Your task to perform on an android device: check google app version Image 0: 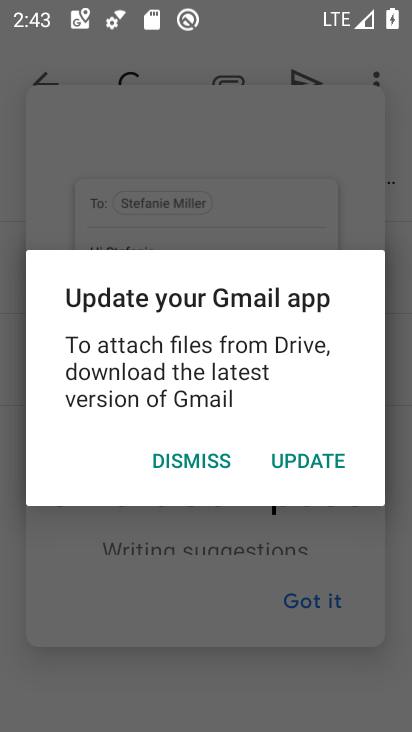
Step 0: press home button
Your task to perform on an android device: check google app version Image 1: 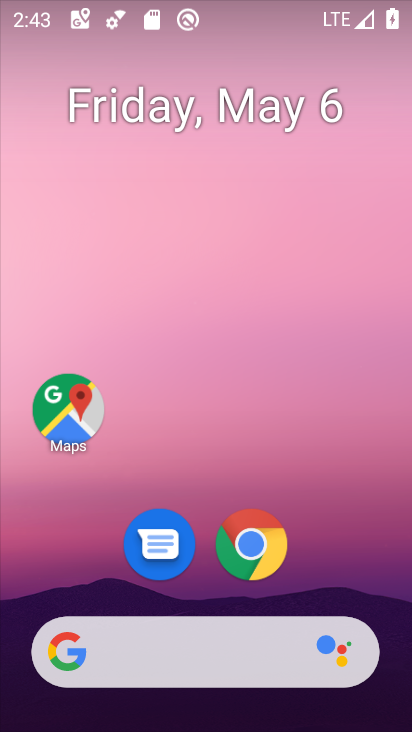
Step 1: drag from (384, 411) to (360, 177)
Your task to perform on an android device: check google app version Image 2: 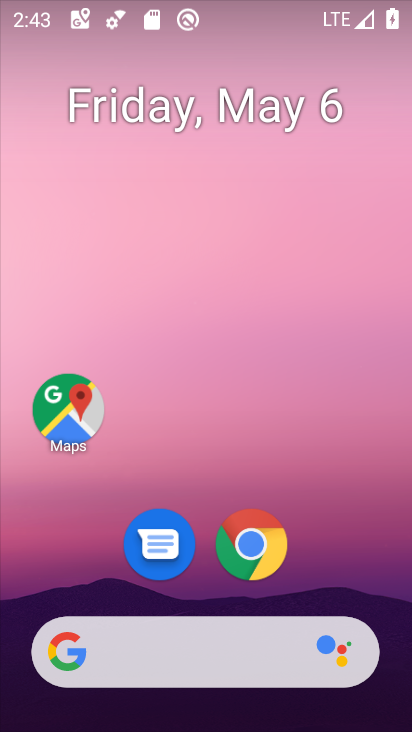
Step 2: drag from (404, 601) to (382, 228)
Your task to perform on an android device: check google app version Image 3: 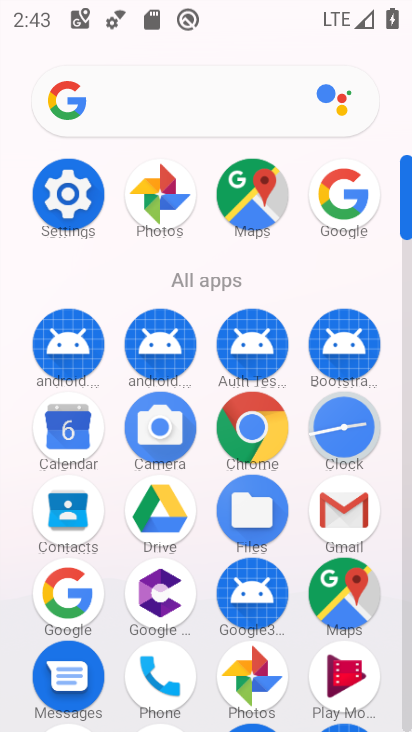
Step 3: click (78, 601)
Your task to perform on an android device: check google app version Image 4: 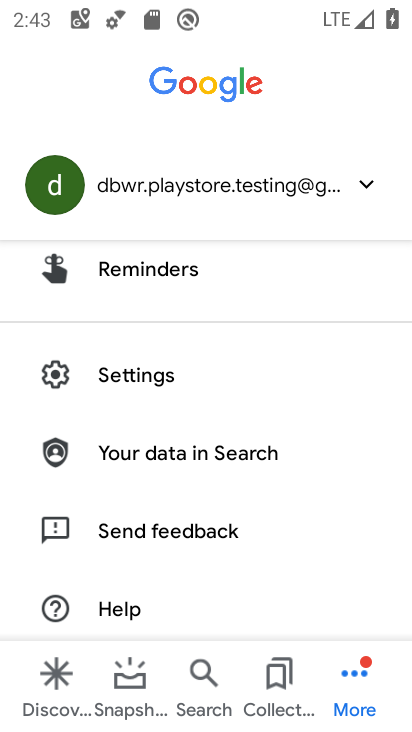
Step 4: click (354, 692)
Your task to perform on an android device: check google app version Image 5: 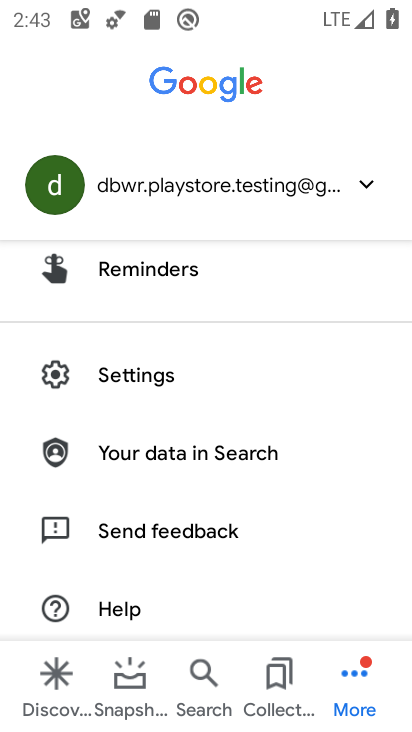
Step 5: drag from (270, 608) to (279, 372)
Your task to perform on an android device: check google app version Image 6: 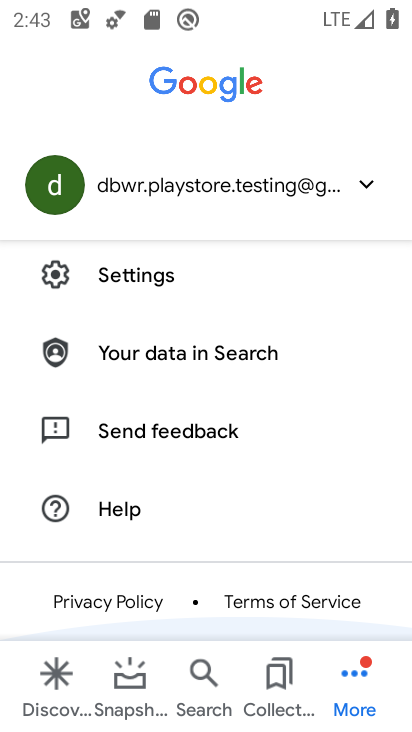
Step 6: click (117, 364)
Your task to perform on an android device: check google app version Image 7: 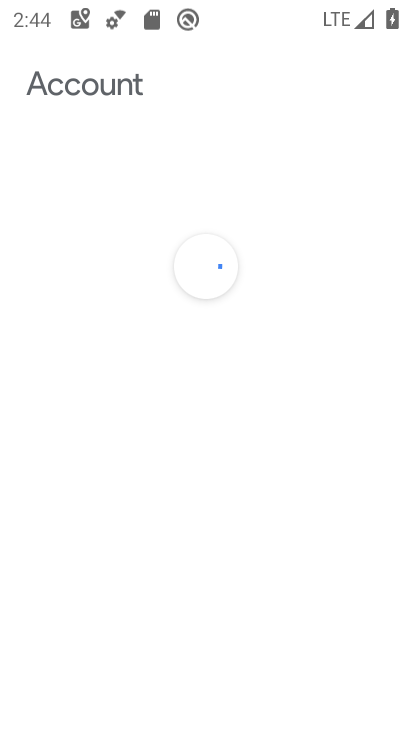
Step 7: click (129, 267)
Your task to perform on an android device: check google app version Image 8: 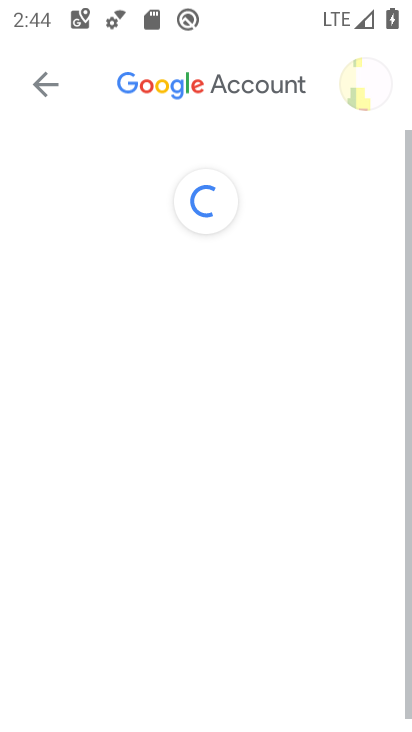
Step 8: press back button
Your task to perform on an android device: check google app version Image 9: 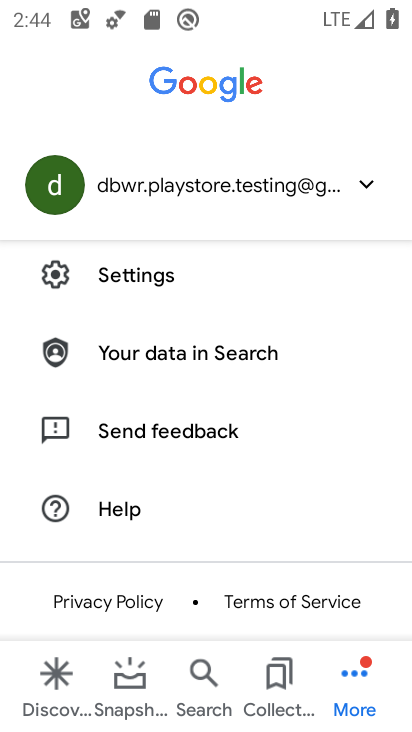
Step 9: click (146, 270)
Your task to perform on an android device: check google app version Image 10: 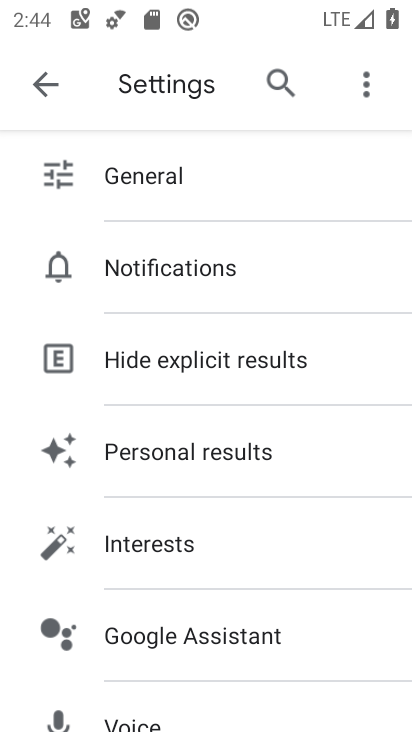
Step 10: drag from (321, 720) to (307, 321)
Your task to perform on an android device: check google app version Image 11: 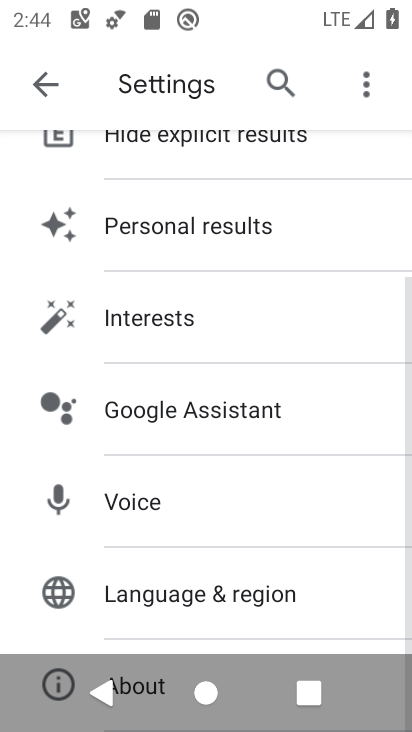
Step 11: drag from (358, 614) to (360, 401)
Your task to perform on an android device: check google app version Image 12: 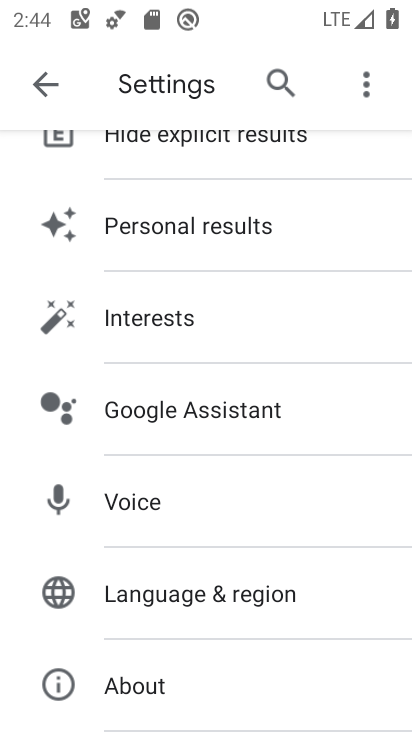
Step 12: click (136, 684)
Your task to perform on an android device: check google app version Image 13: 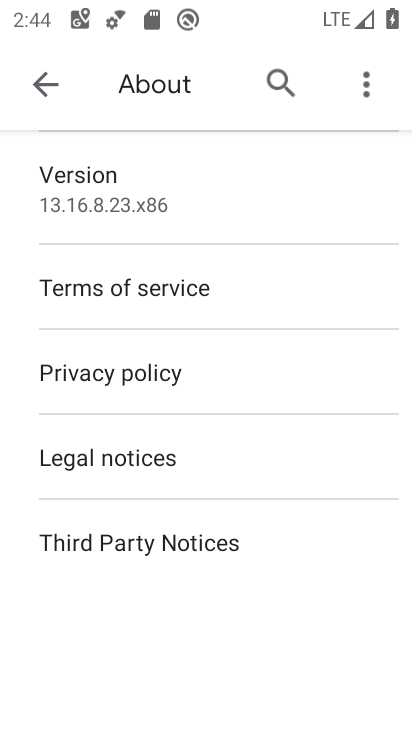
Step 13: click (68, 188)
Your task to perform on an android device: check google app version Image 14: 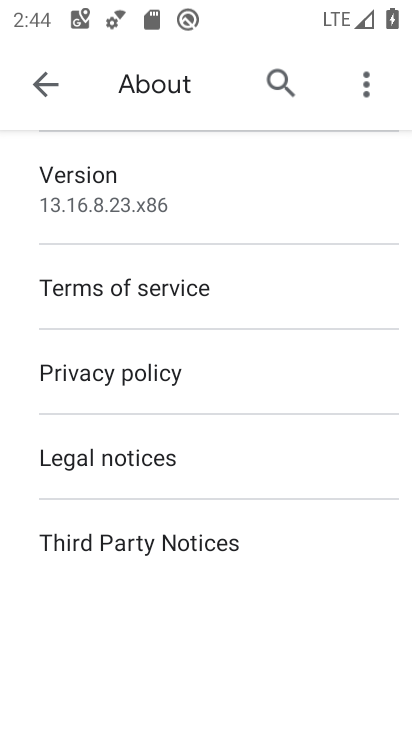
Step 14: task complete